Your task to perform on an android device: Turn on the flashlight Image 0: 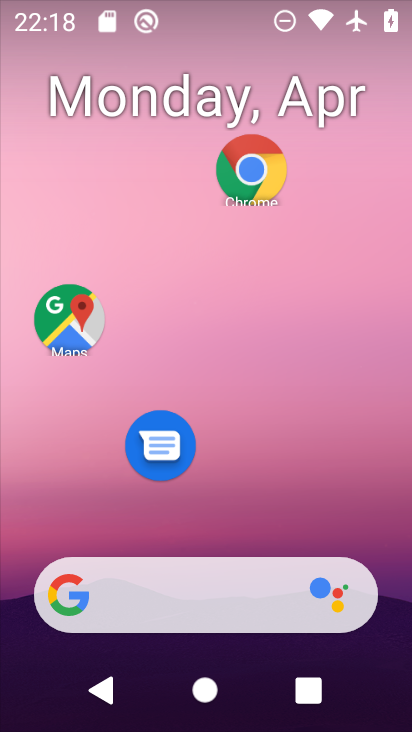
Step 0: drag from (212, 541) to (212, 158)
Your task to perform on an android device: Turn on the flashlight Image 1: 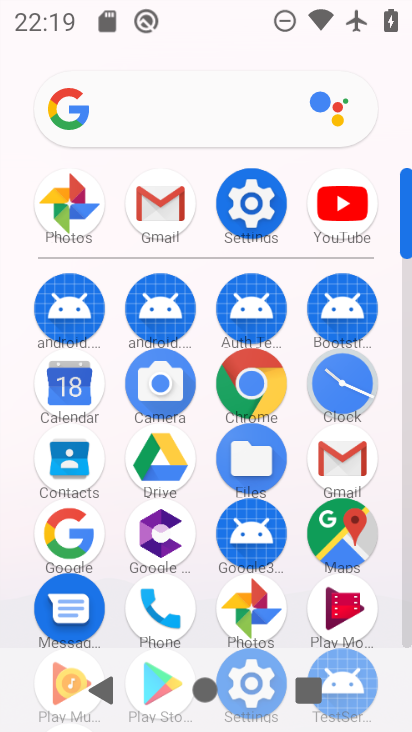
Step 1: click (245, 216)
Your task to perform on an android device: Turn on the flashlight Image 2: 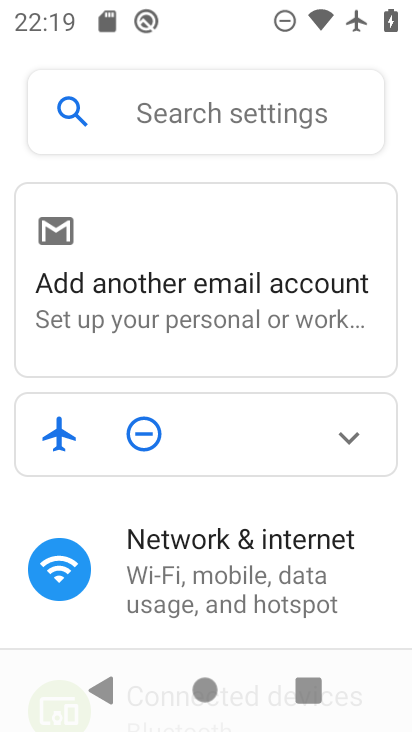
Step 2: drag from (203, 467) to (199, 203)
Your task to perform on an android device: Turn on the flashlight Image 3: 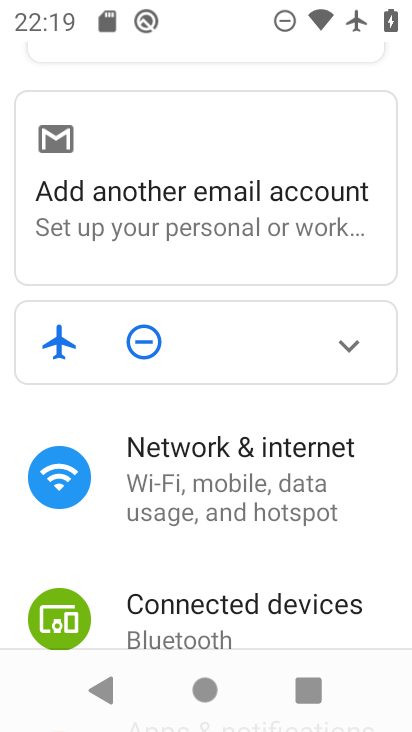
Step 3: click (241, 474)
Your task to perform on an android device: Turn on the flashlight Image 4: 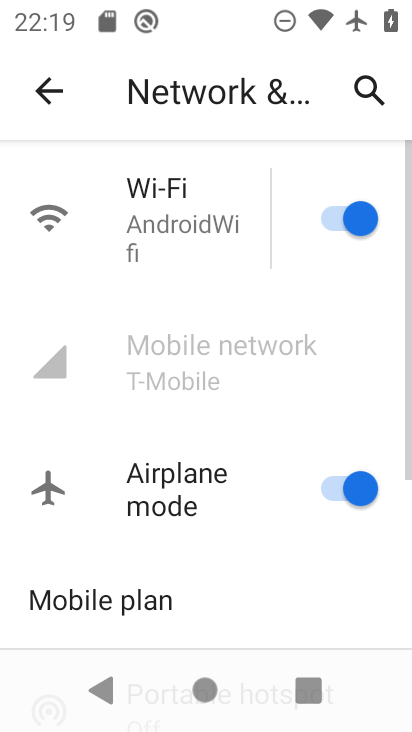
Step 4: task complete